Your task to perform on an android device: turn on location history Image 0: 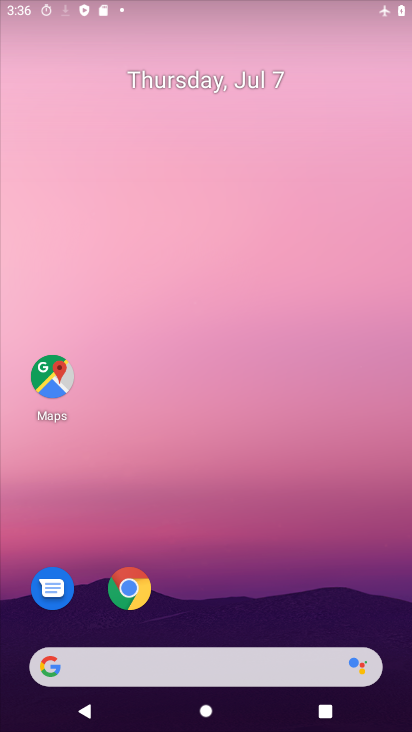
Step 0: drag from (294, 668) to (267, 207)
Your task to perform on an android device: turn on location history Image 1: 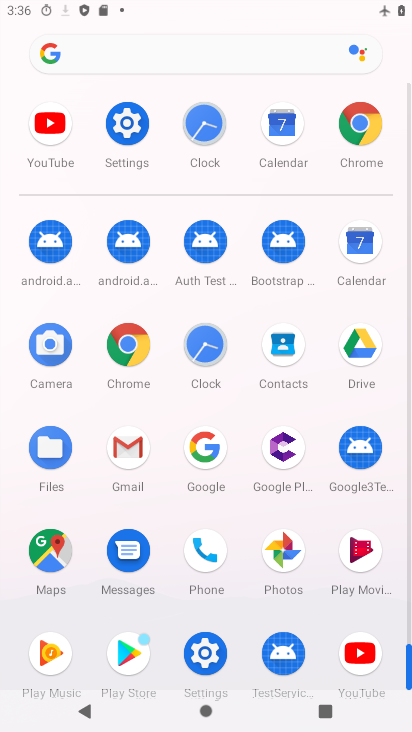
Step 1: click (138, 144)
Your task to perform on an android device: turn on location history Image 2: 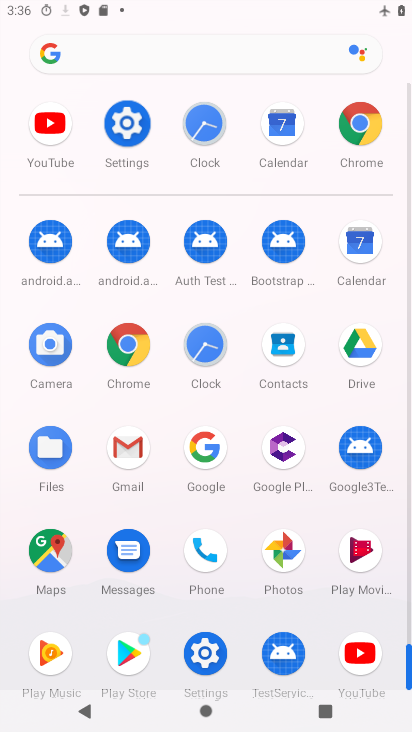
Step 2: click (137, 145)
Your task to perform on an android device: turn on location history Image 3: 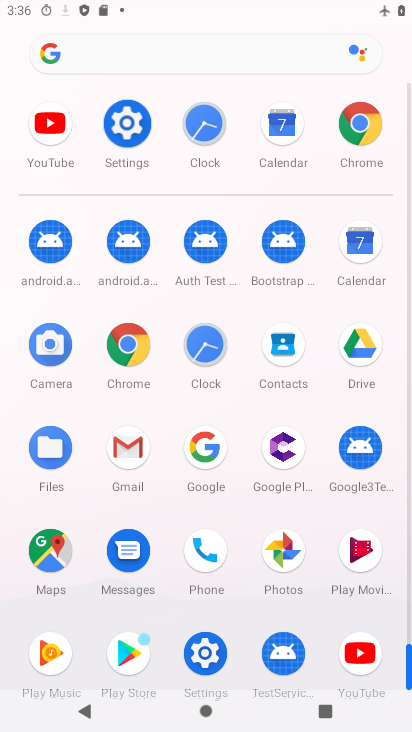
Step 3: click (138, 146)
Your task to perform on an android device: turn on location history Image 4: 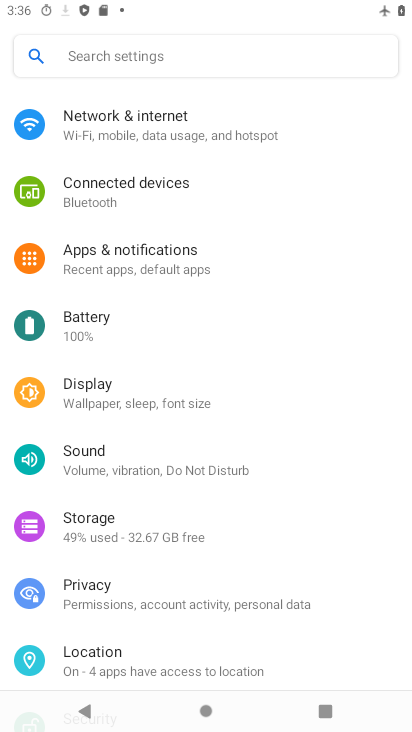
Step 4: click (129, 655)
Your task to perform on an android device: turn on location history Image 5: 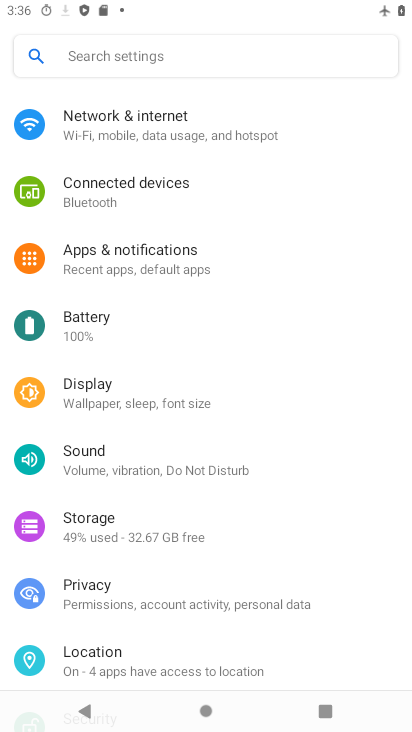
Step 5: click (128, 655)
Your task to perform on an android device: turn on location history Image 6: 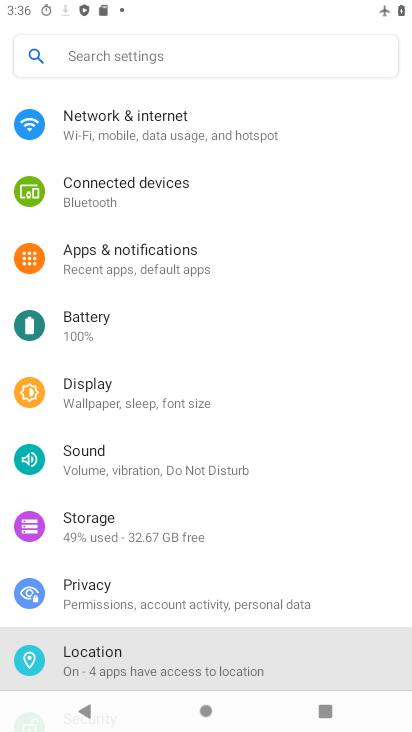
Step 6: click (128, 655)
Your task to perform on an android device: turn on location history Image 7: 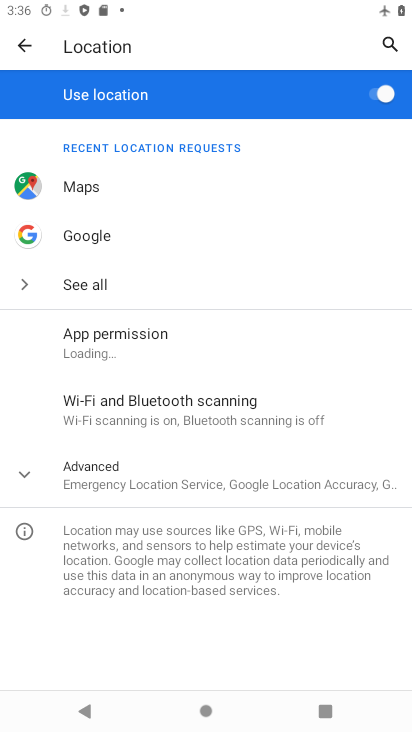
Step 7: click (141, 485)
Your task to perform on an android device: turn on location history Image 8: 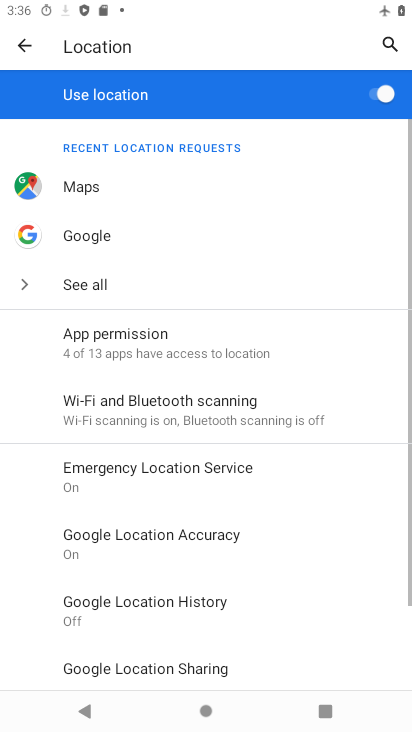
Step 8: click (189, 597)
Your task to perform on an android device: turn on location history Image 9: 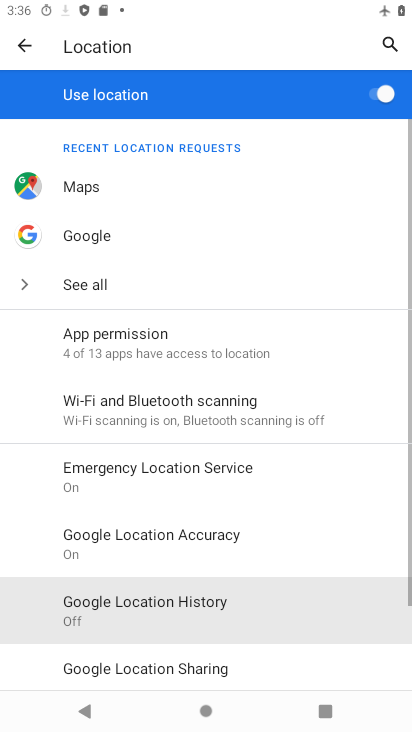
Step 9: click (192, 599)
Your task to perform on an android device: turn on location history Image 10: 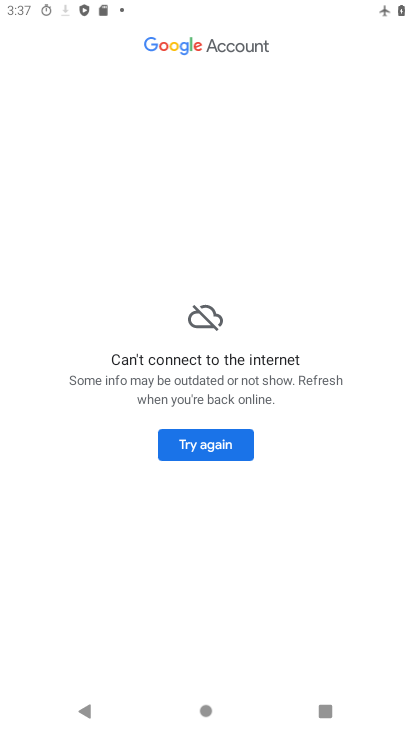
Step 10: task complete